Your task to perform on an android device: Go to sound settings Image 0: 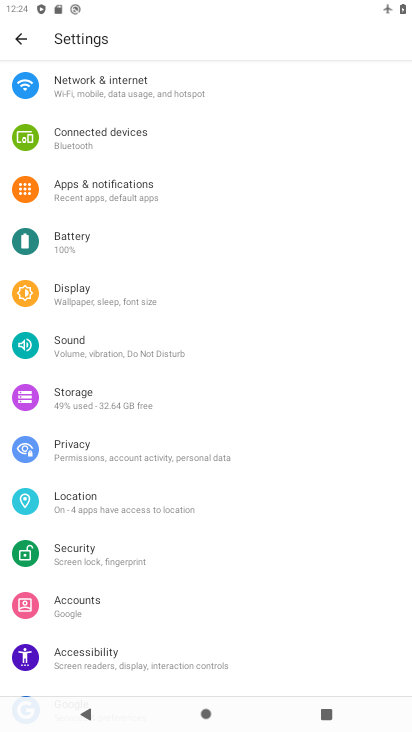
Step 0: drag from (219, 199) to (232, 130)
Your task to perform on an android device: Go to sound settings Image 1: 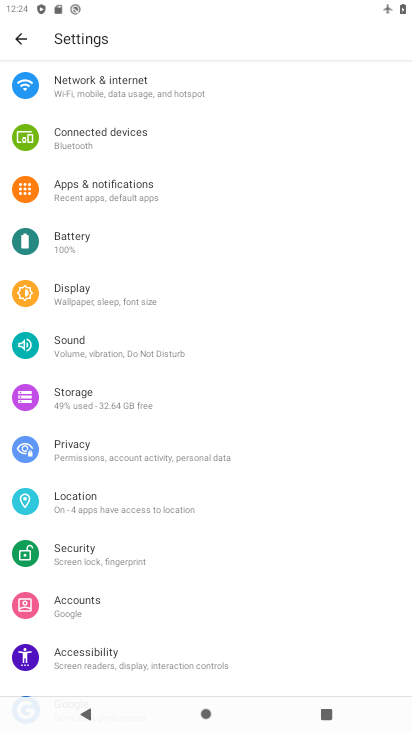
Step 1: click (111, 350)
Your task to perform on an android device: Go to sound settings Image 2: 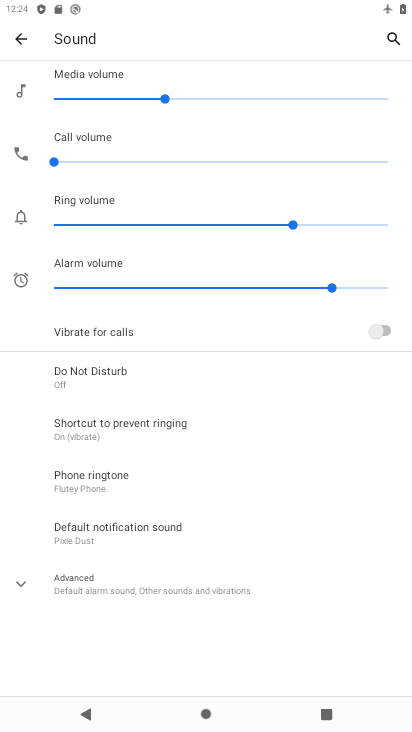
Step 2: task complete